Your task to perform on an android device: delete the emails in spam in the gmail app Image 0: 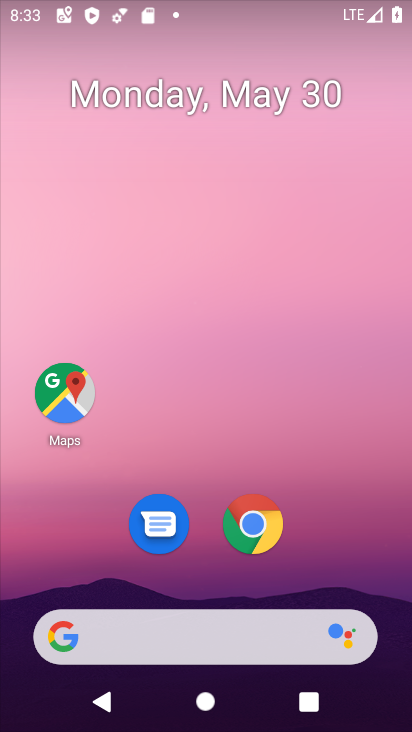
Step 0: drag from (214, 462) to (210, 2)
Your task to perform on an android device: delete the emails in spam in the gmail app Image 1: 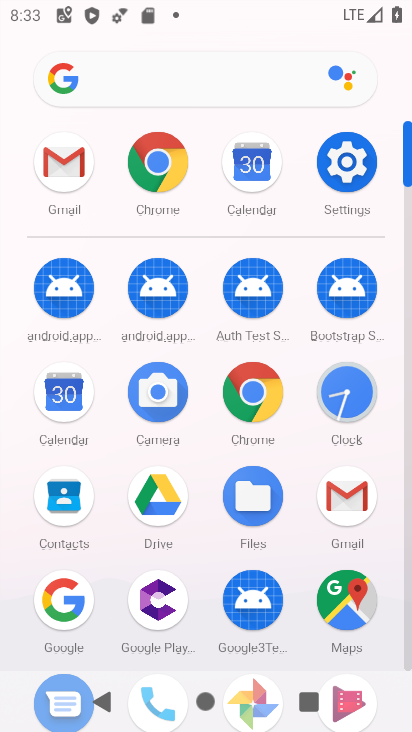
Step 1: click (67, 170)
Your task to perform on an android device: delete the emails in spam in the gmail app Image 2: 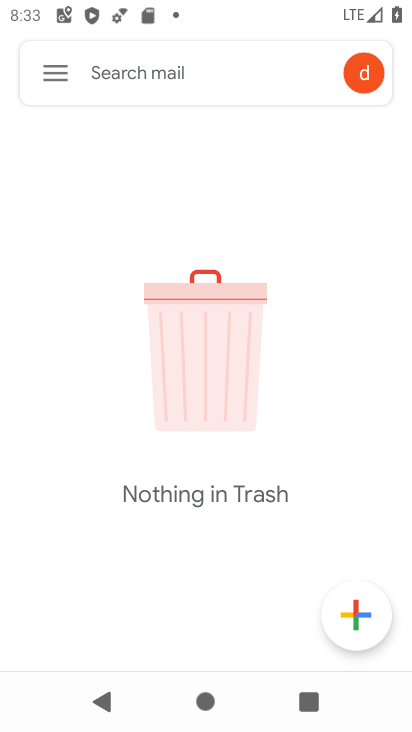
Step 2: click (52, 67)
Your task to perform on an android device: delete the emails in spam in the gmail app Image 3: 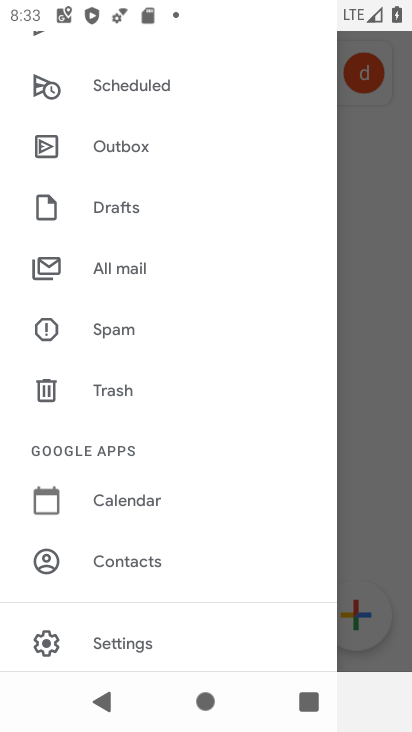
Step 3: click (88, 316)
Your task to perform on an android device: delete the emails in spam in the gmail app Image 4: 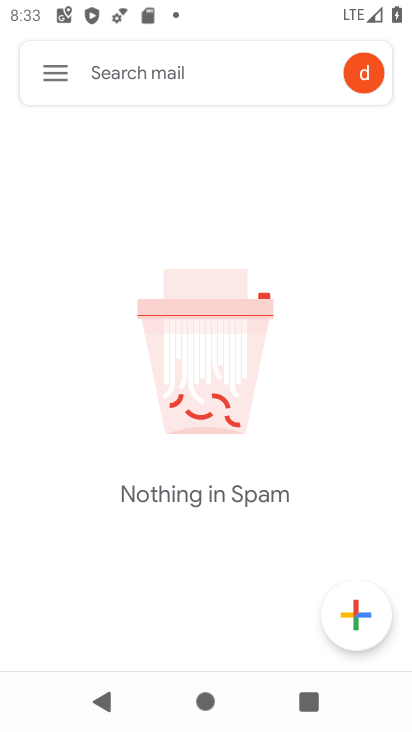
Step 4: task complete